Your task to perform on an android device: Check out the top rated books on Goodreads. Image 0: 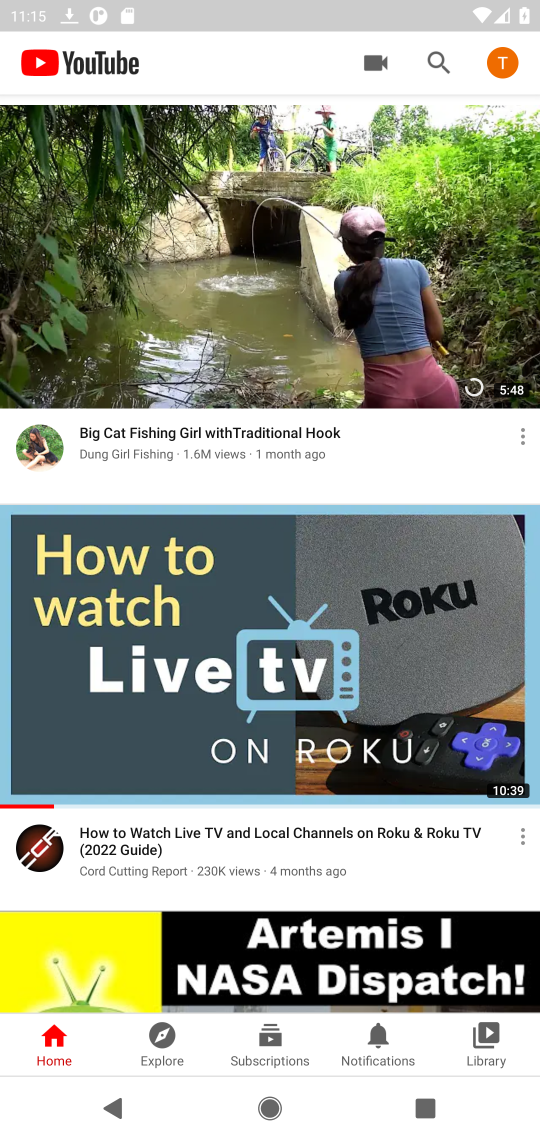
Step 0: press home button
Your task to perform on an android device: Check out the top rated books on Goodreads. Image 1: 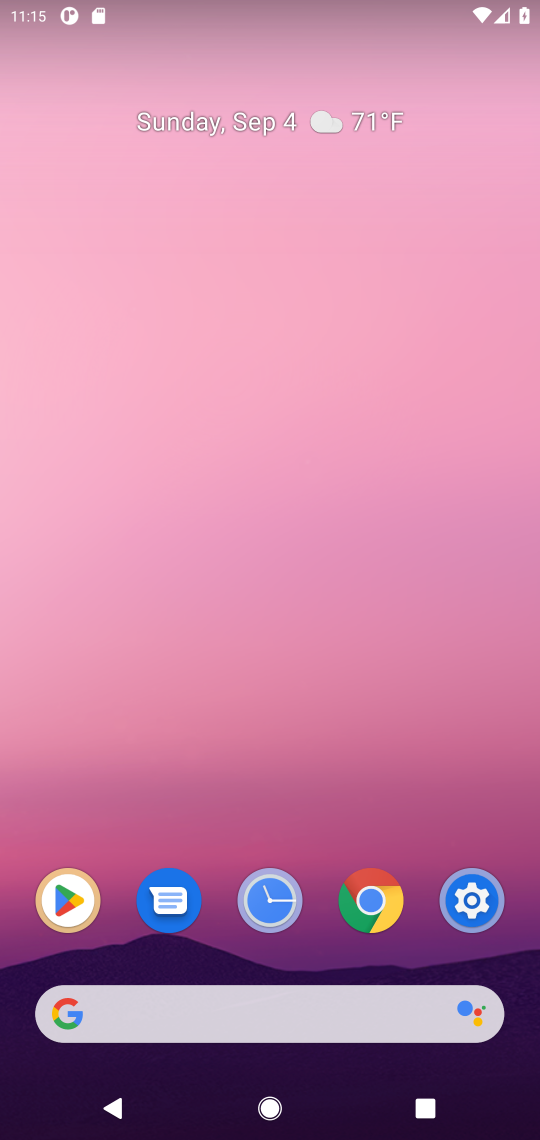
Step 1: click (370, 910)
Your task to perform on an android device: Check out the top rated books on Goodreads. Image 2: 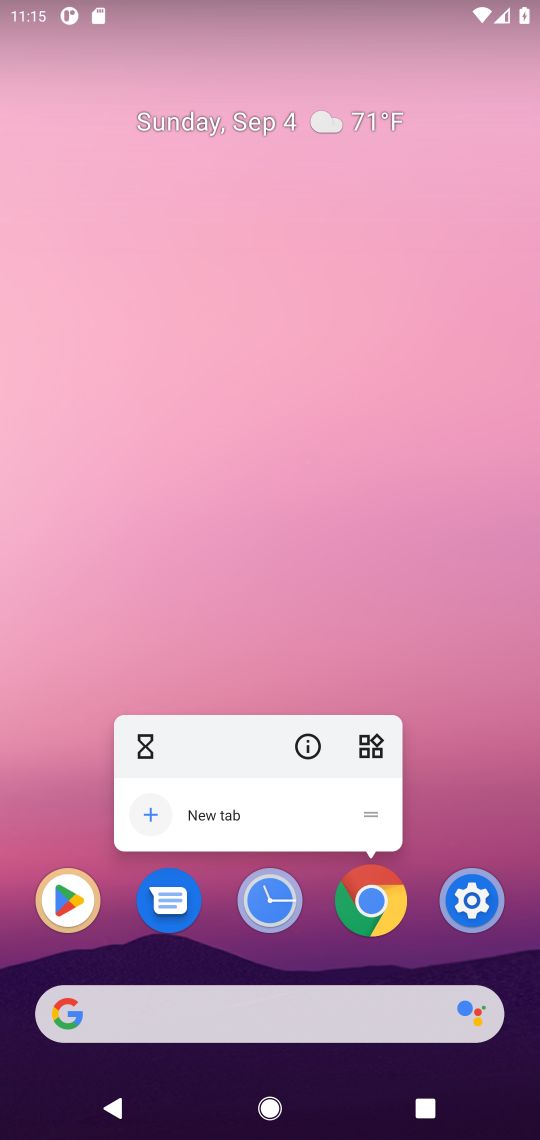
Step 2: click (370, 909)
Your task to perform on an android device: Check out the top rated books on Goodreads. Image 3: 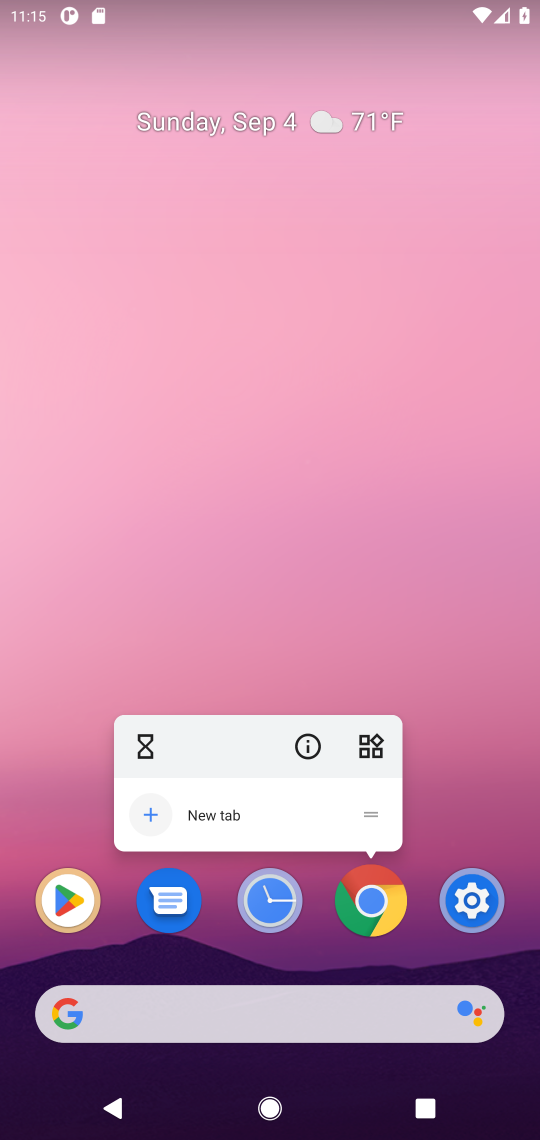
Step 3: click (370, 909)
Your task to perform on an android device: Check out the top rated books on Goodreads. Image 4: 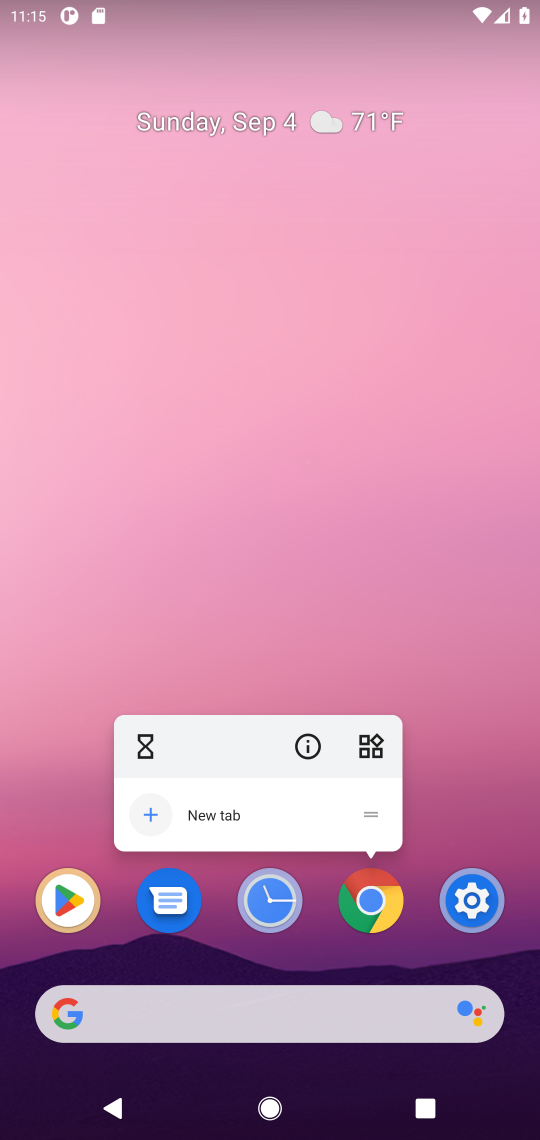
Step 4: click (370, 909)
Your task to perform on an android device: Check out the top rated books on Goodreads. Image 5: 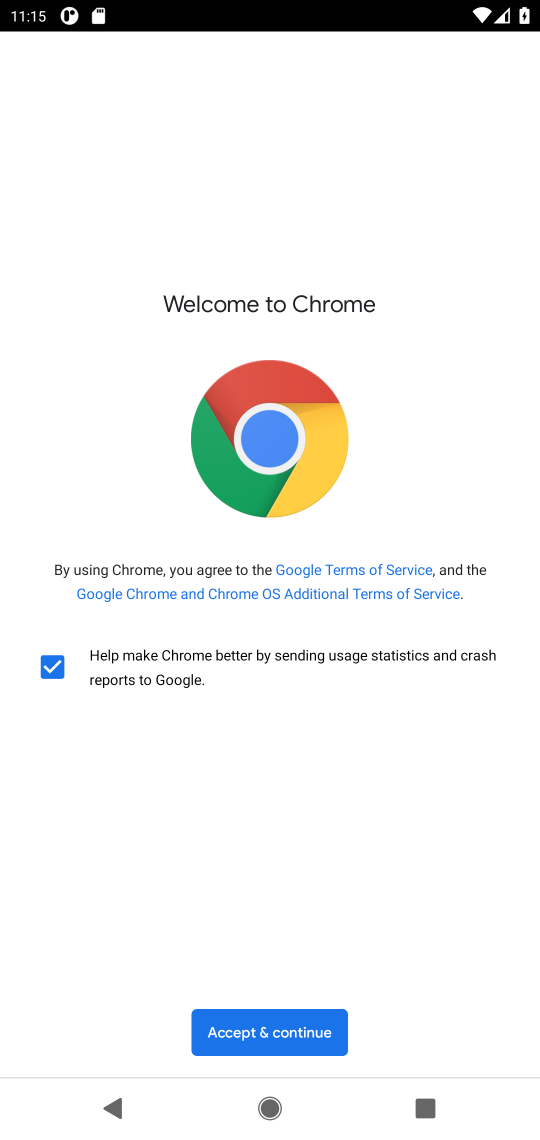
Step 5: click (271, 1023)
Your task to perform on an android device: Check out the top rated books on Goodreads. Image 6: 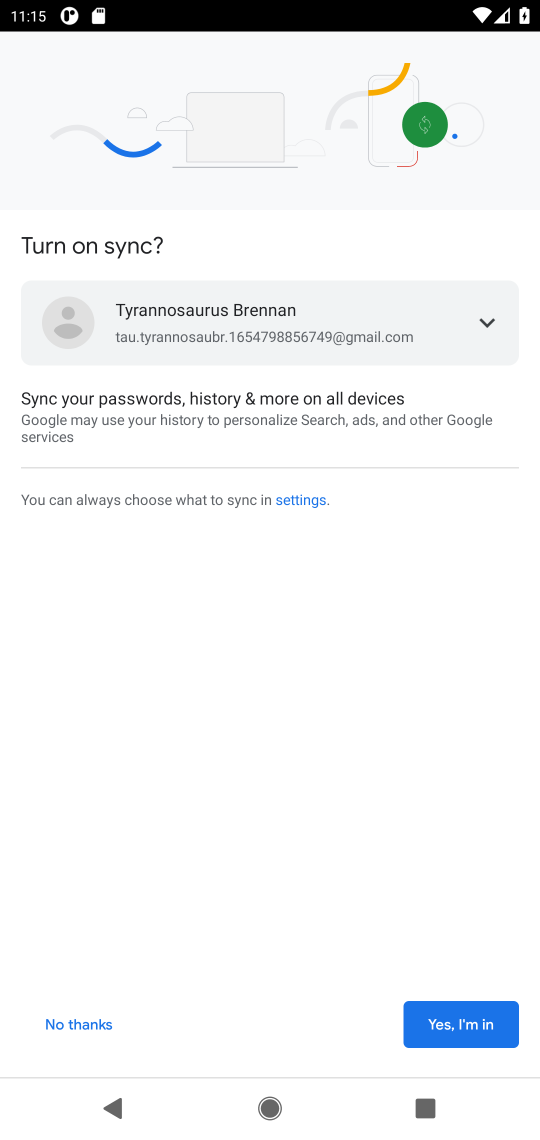
Step 6: click (481, 1015)
Your task to perform on an android device: Check out the top rated books on Goodreads. Image 7: 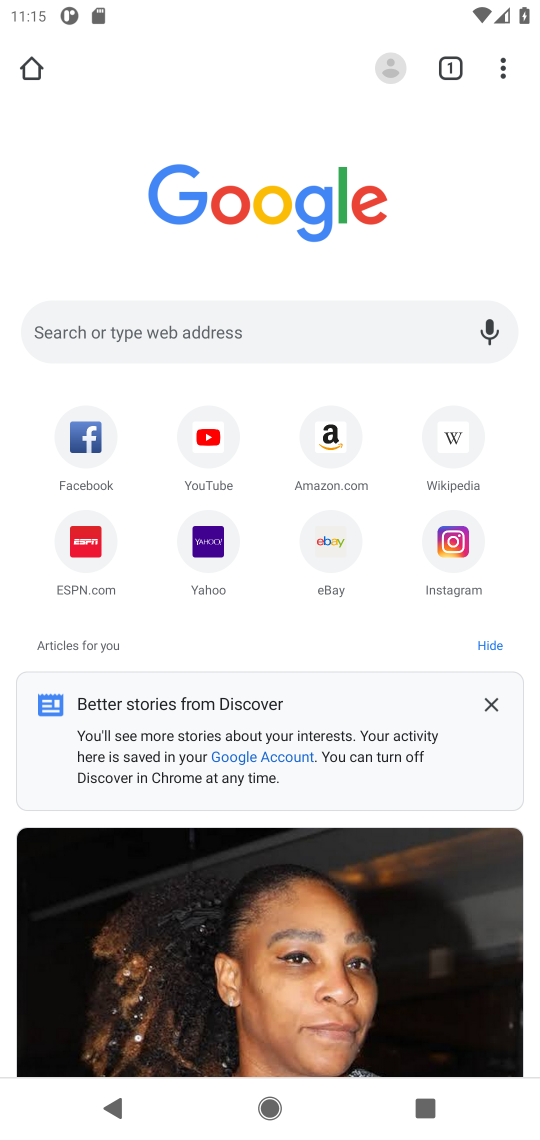
Step 7: click (224, 337)
Your task to perform on an android device: Check out the top rated books on Goodreads. Image 8: 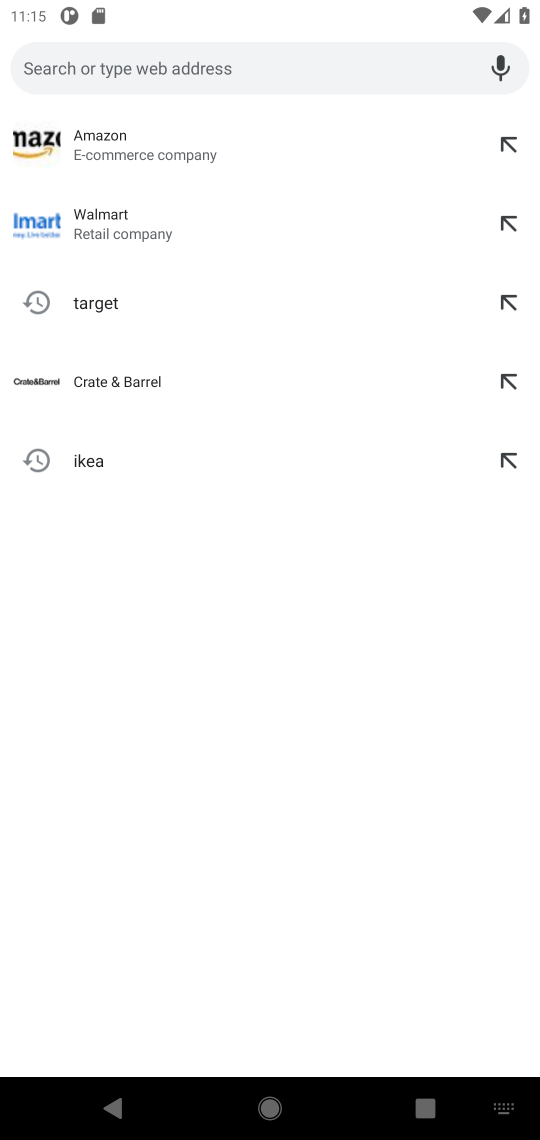
Step 8: click (95, 61)
Your task to perform on an android device: Check out the top rated books on Goodreads. Image 9: 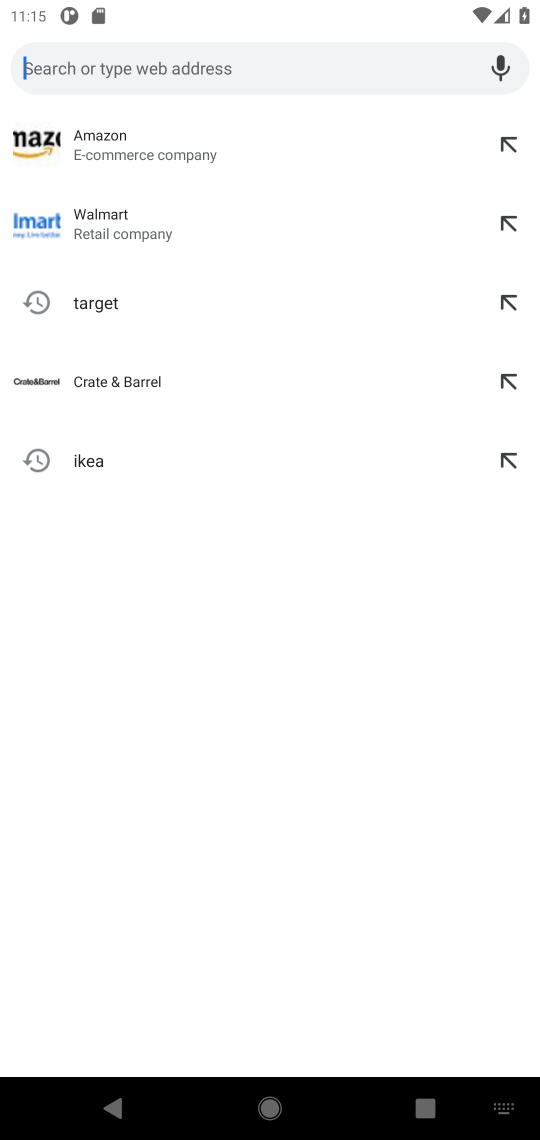
Step 9: type "Goodreads"
Your task to perform on an android device: Check out the top rated books on Goodreads. Image 10: 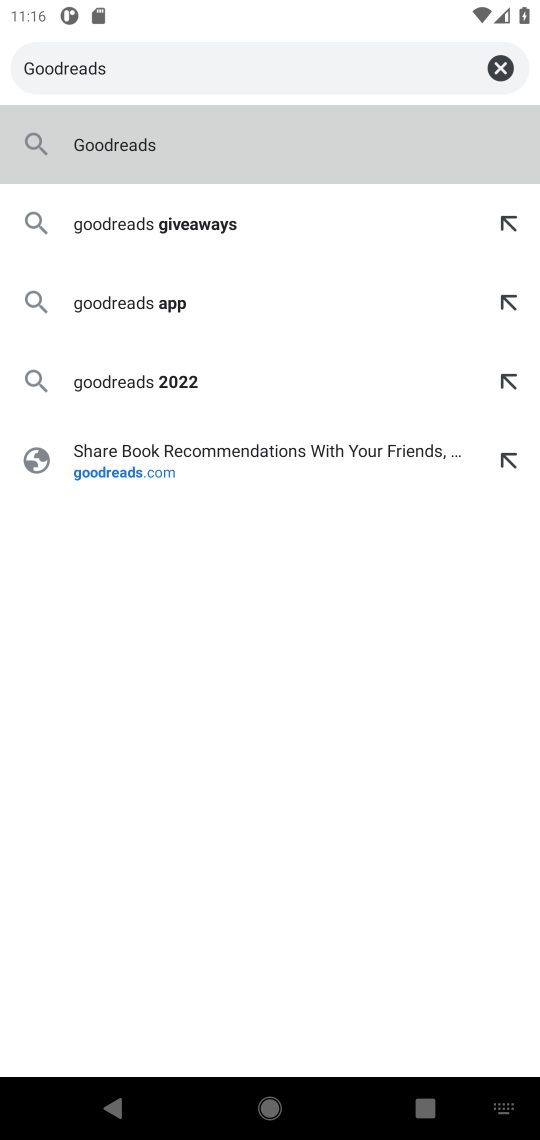
Step 10: press enter
Your task to perform on an android device: Check out the top rated books on Goodreads. Image 11: 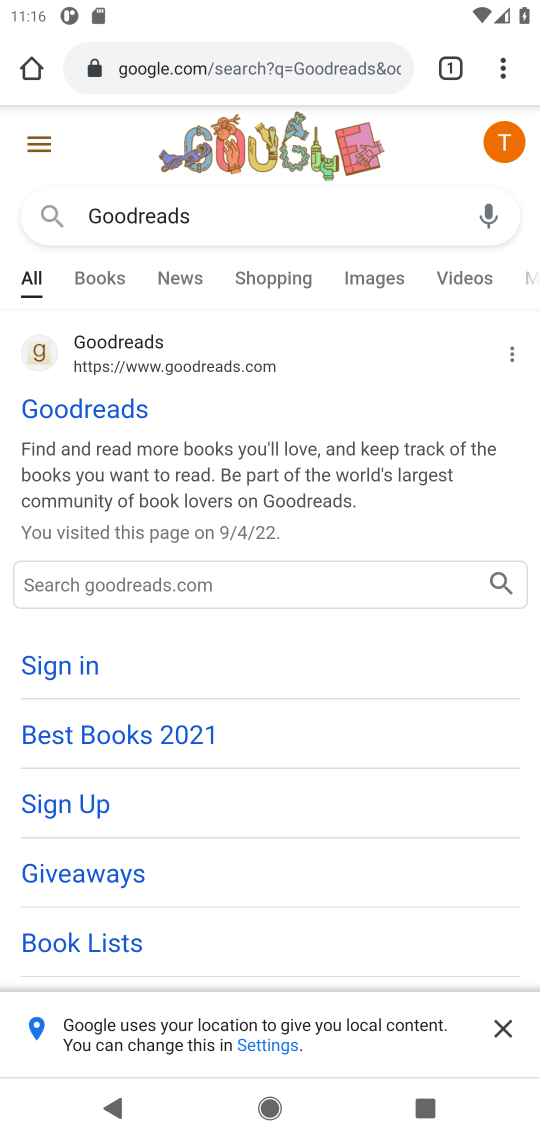
Step 11: click (127, 407)
Your task to perform on an android device: Check out the top rated books on Goodreads. Image 12: 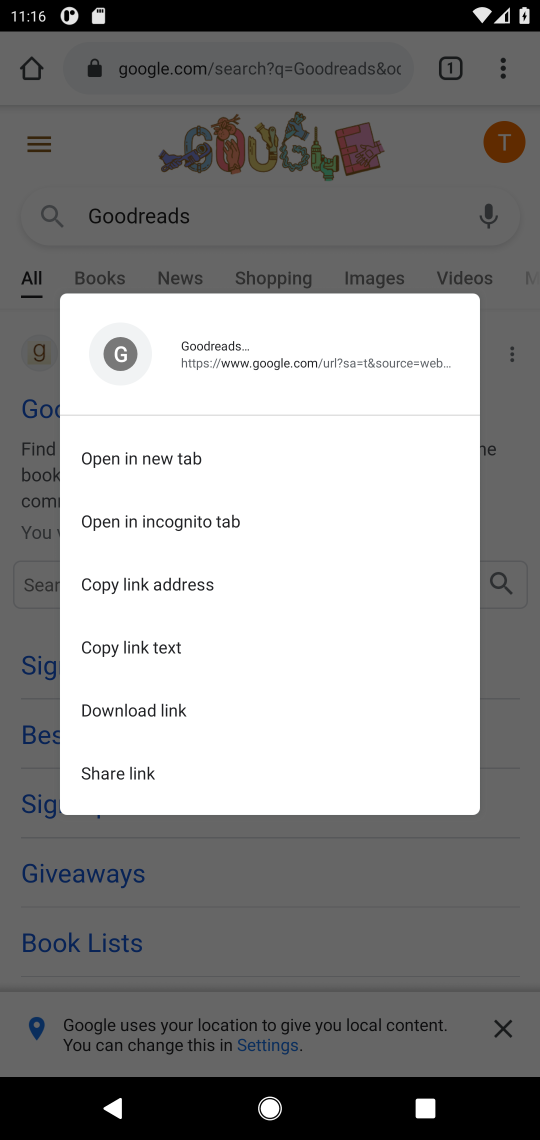
Step 12: click (498, 873)
Your task to perform on an android device: Check out the top rated books on Goodreads. Image 13: 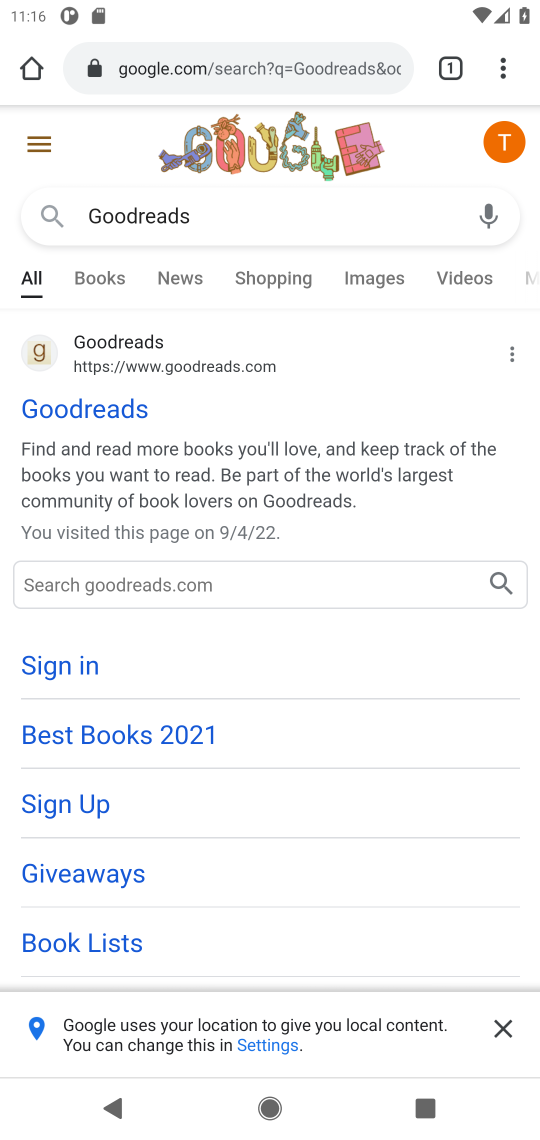
Step 13: click (43, 411)
Your task to perform on an android device: Check out the top rated books on Goodreads. Image 14: 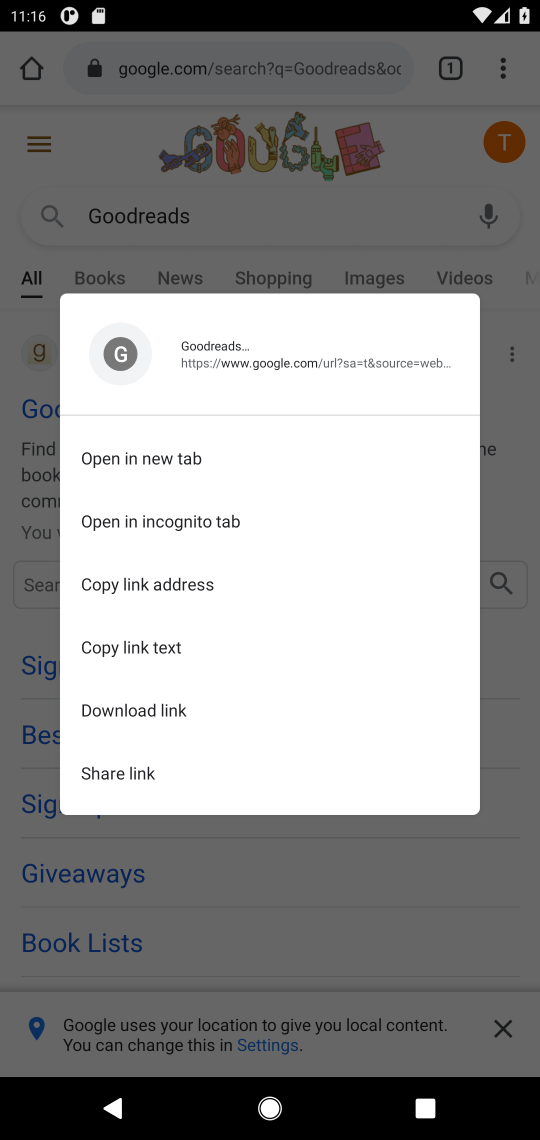
Step 14: click (512, 901)
Your task to perform on an android device: Check out the top rated books on Goodreads. Image 15: 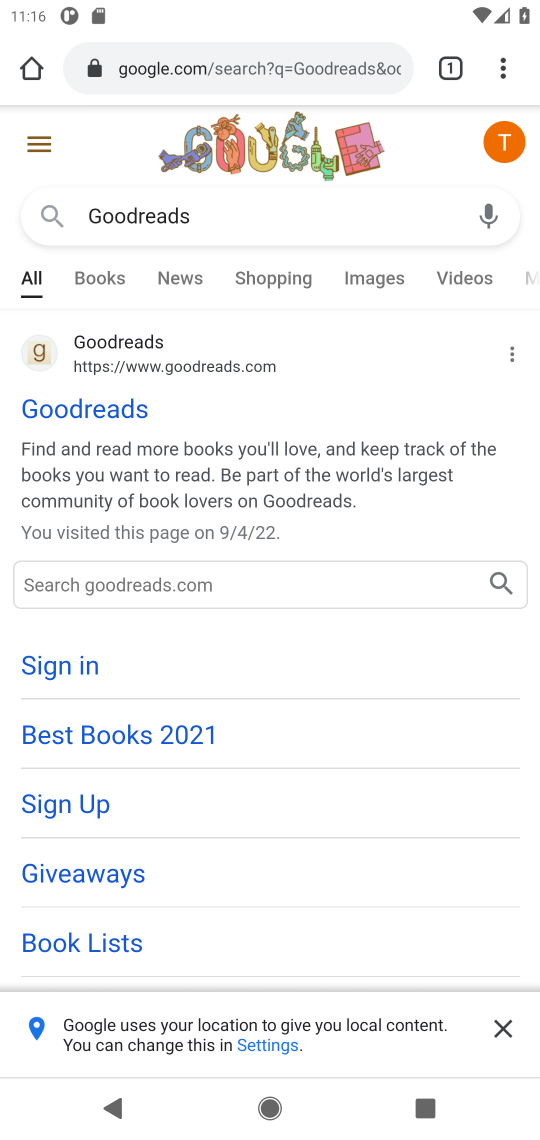
Step 15: click (125, 409)
Your task to perform on an android device: Check out the top rated books on Goodreads. Image 16: 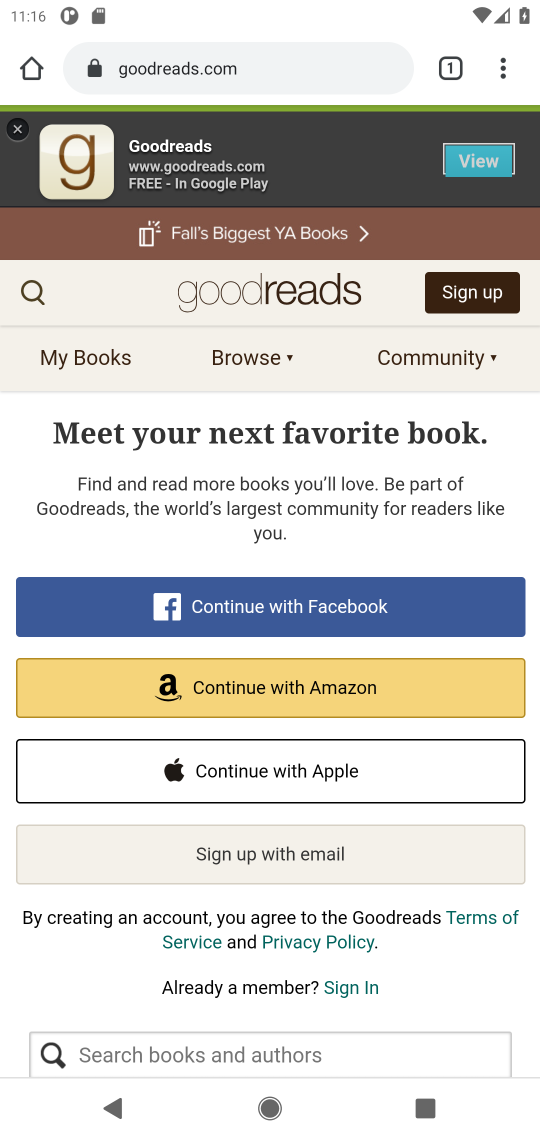
Step 16: click (32, 290)
Your task to perform on an android device: Check out the top rated books on Goodreads. Image 17: 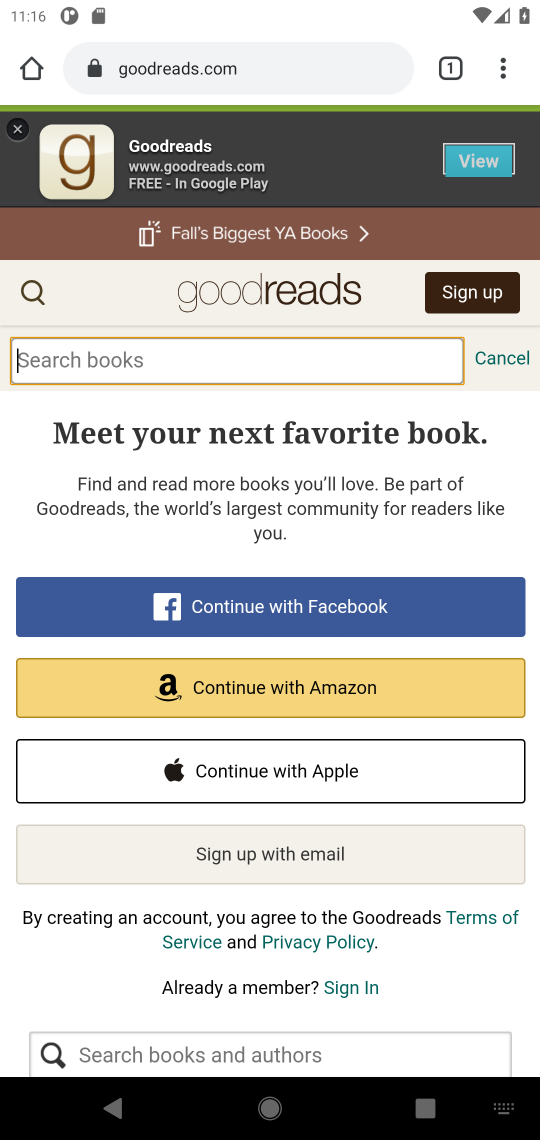
Step 17: click (64, 357)
Your task to perform on an android device: Check out the top rated books on Goodreads. Image 18: 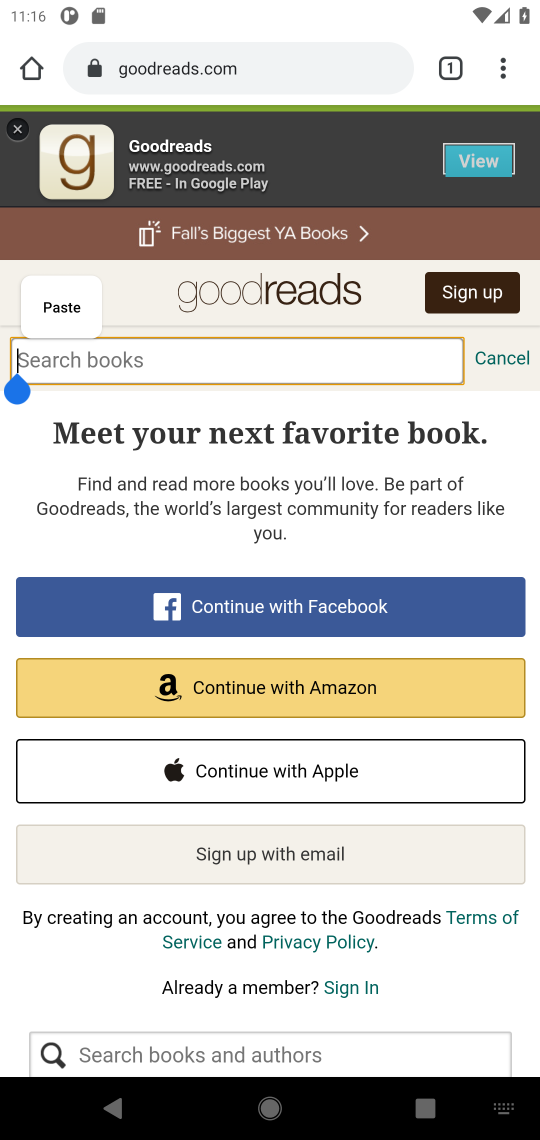
Step 18: type "top rated books"
Your task to perform on an android device: Check out the top rated books on Goodreads. Image 19: 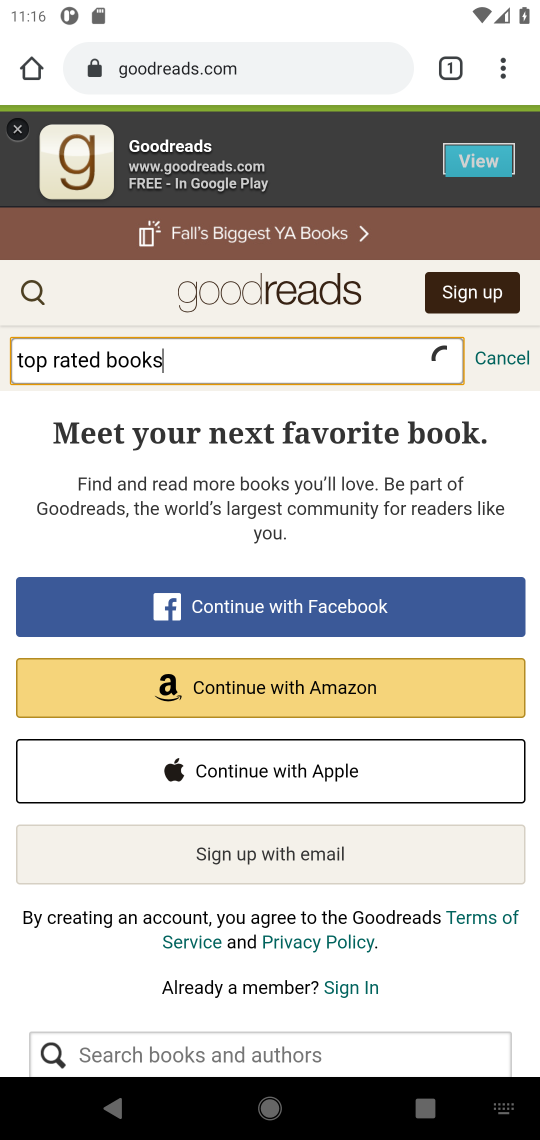
Step 19: press enter
Your task to perform on an android device: Check out the top rated books on Goodreads. Image 20: 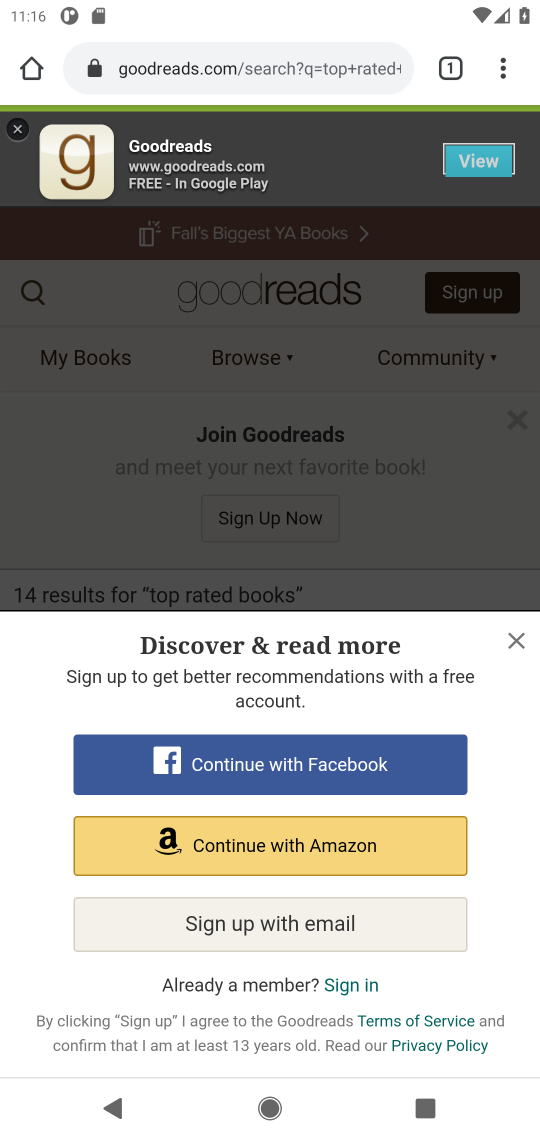
Step 20: click (509, 637)
Your task to perform on an android device: Check out the top rated books on Goodreads. Image 21: 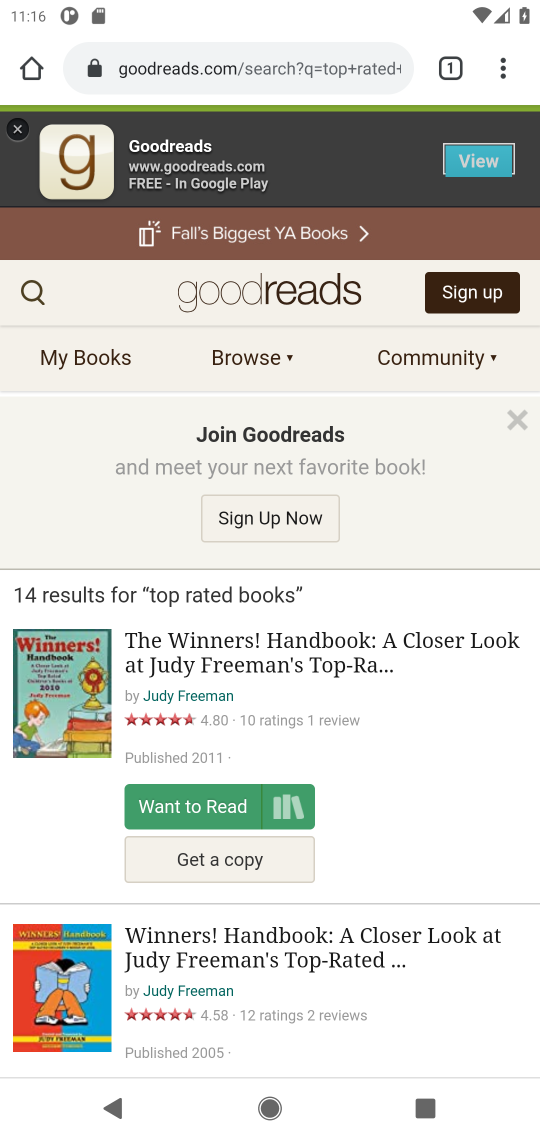
Step 21: task complete